Your task to perform on an android device: toggle notifications settings in the gmail app Image 0: 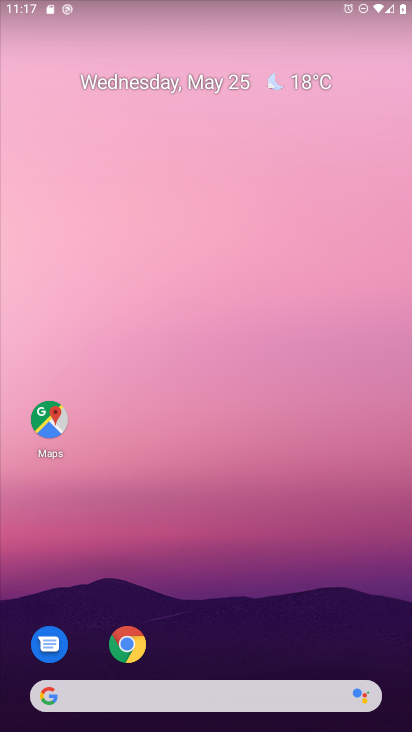
Step 0: press home button
Your task to perform on an android device: toggle notifications settings in the gmail app Image 1: 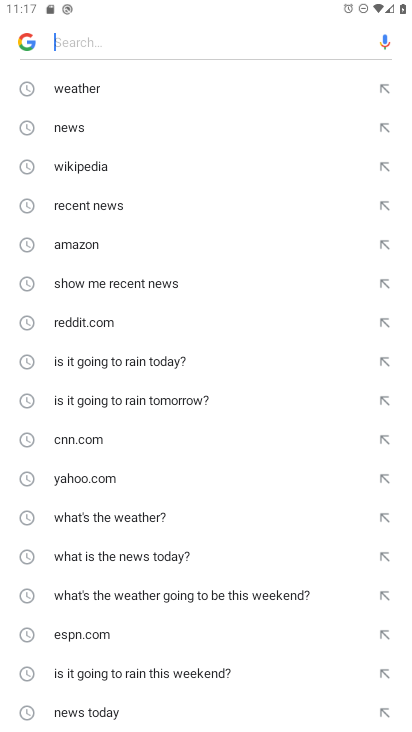
Step 1: press home button
Your task to perform on an android device: toggle notifications settings in the gmail app Image 2: 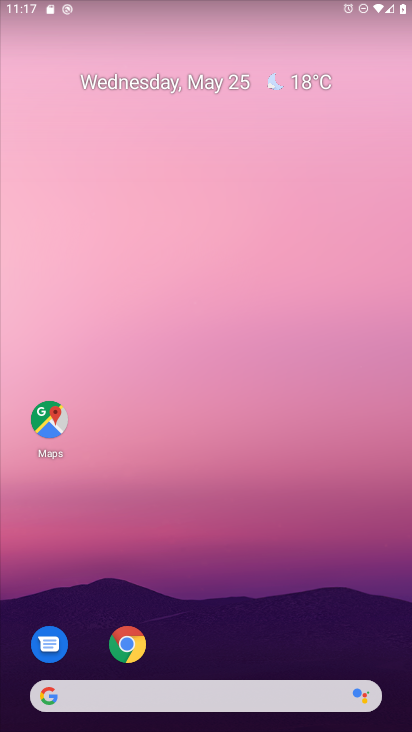
Step 2: drag from (225, 660) to (258, 261)
Your task to perform on an android device: toggle notifications settings in the gmail app Image 3: 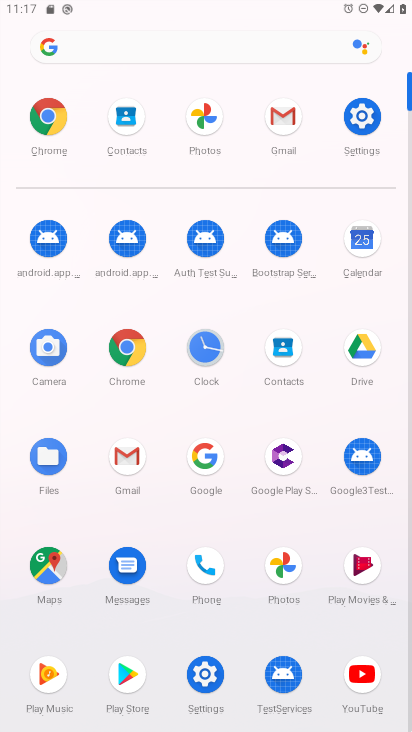
Step 3: click (130, 449)
Your task to perform on an android device: toggle notifications settings in the gmail app Image 4: 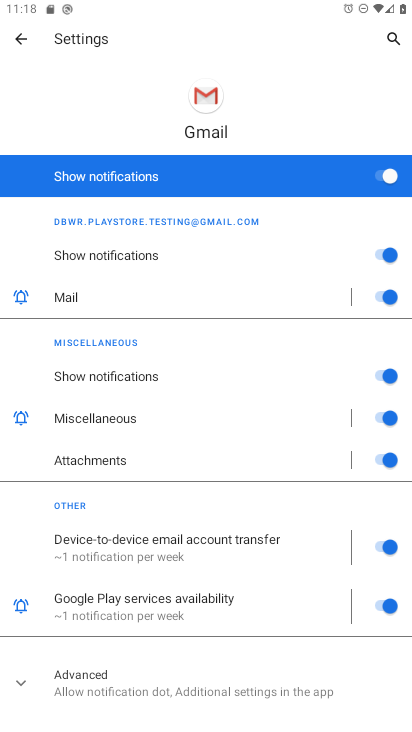
Step 4: click (378, 174)
Your task to perform on an android device: toggle notifications settings in the gmail app Image 5: 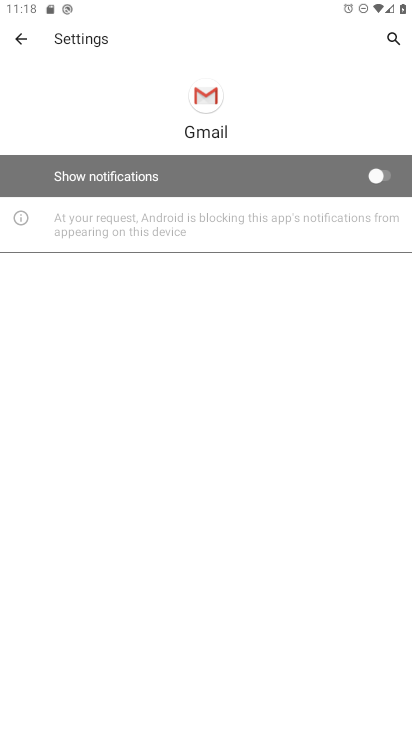
Step 5: task complete